Your task to perform on an android device: Go to calendar. Show me events next week Image 0: 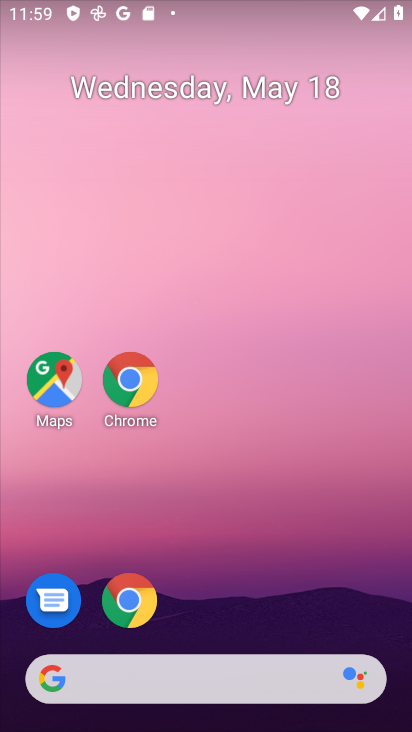
Step 0: drag from (331, 675) to (190, 31)
Your task to perform on an android device: Go to calendar. Show me events next week Image 1: 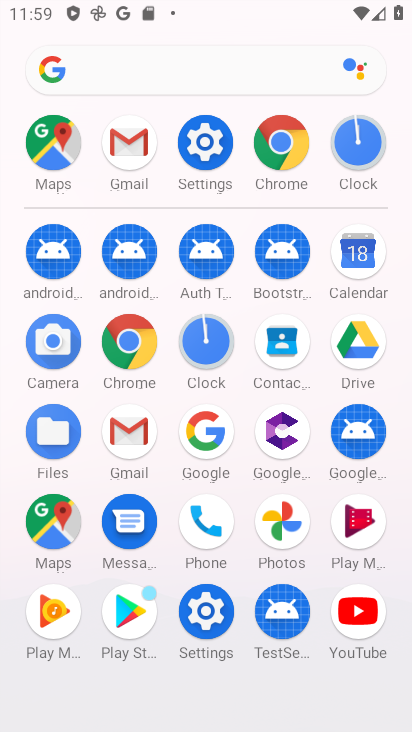
Step 1: click (363, 253)
Your task to perform on an android device: Go to calendar. Show me events next week Image 2: 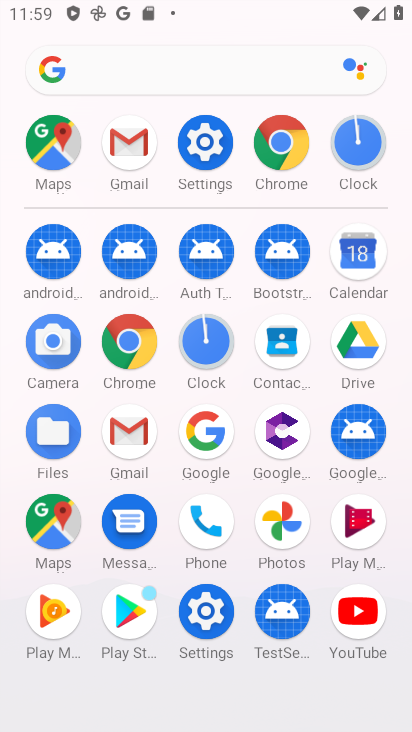
Step 2: click (363, 257)
Your task to perform on an android device: Go to calendar. Show me events next week Image 3: 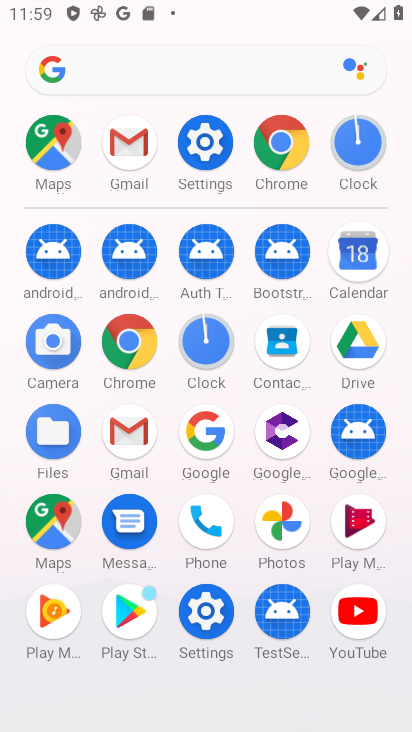
Step 3: click (372, 271)
Your task to perform on an android device: Go to calendar. Show me events next week Image 4: 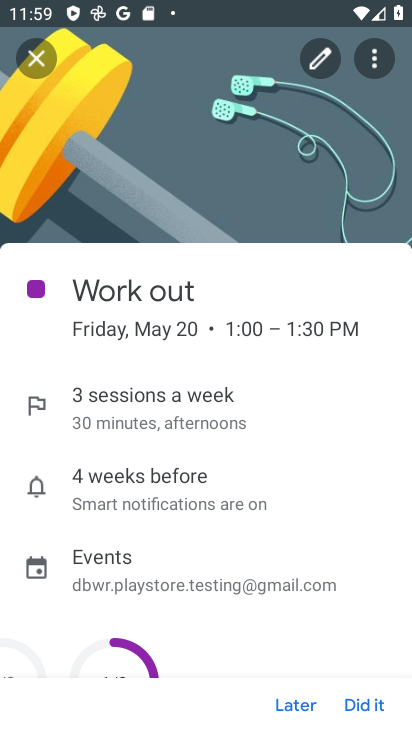
Step 4: click (345, 255)
Your task to perform on an android device: Go to calendar. Show me events next week Image 5: 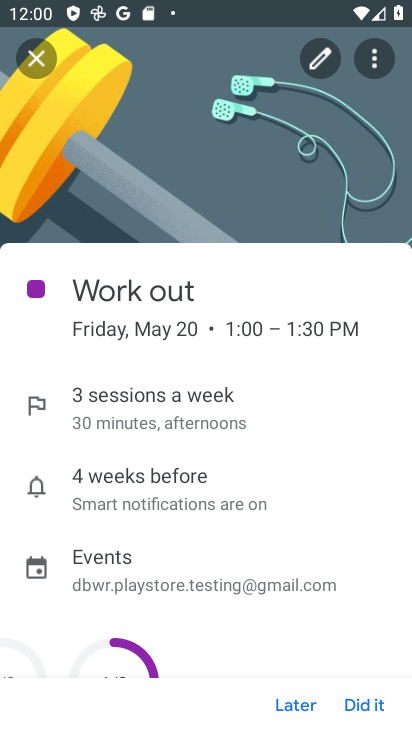
Step 5: drag from (195, 556) to (144, 274)
Your task to perform on an android device: Go to calendar. Show me events next week Image 6: 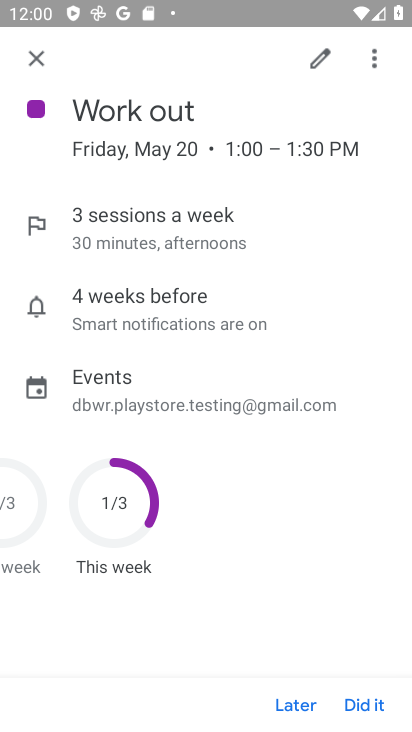
Step 6: drag from (221, 446) to (141, 142)
Your task to perform on an android device: Go to calendar. Show me events next week Image 7: 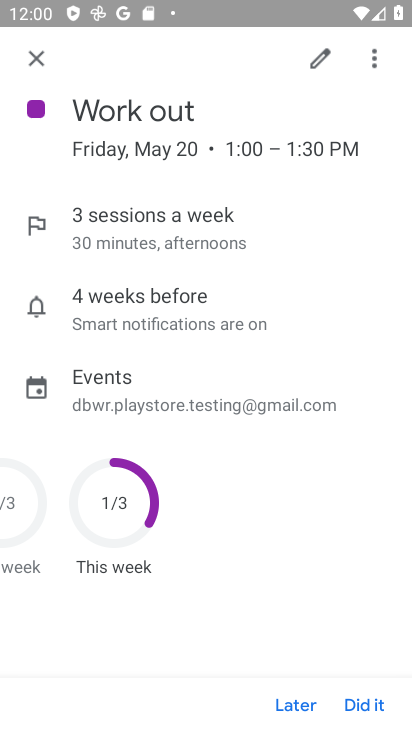
Step 7: drag from (329, 525) to (257, 44)
Your task to perform on an android device: Go to calendar. Show me events next week Image 8: 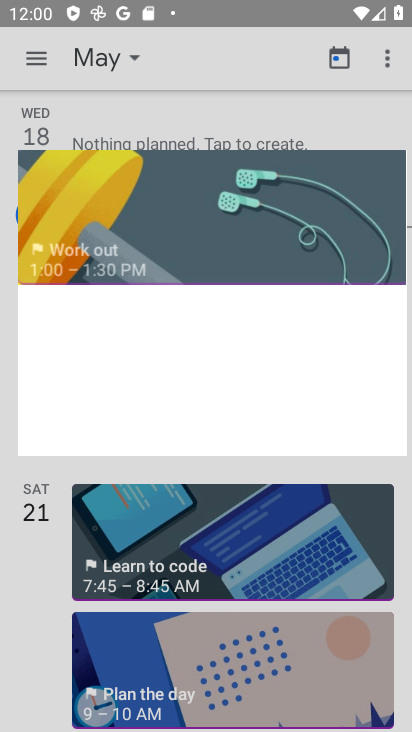
Step 8: drag from (282, 493) to (202, 76)
Your task to perform on an android device: Go to calendar. Show me events next week Image 9: 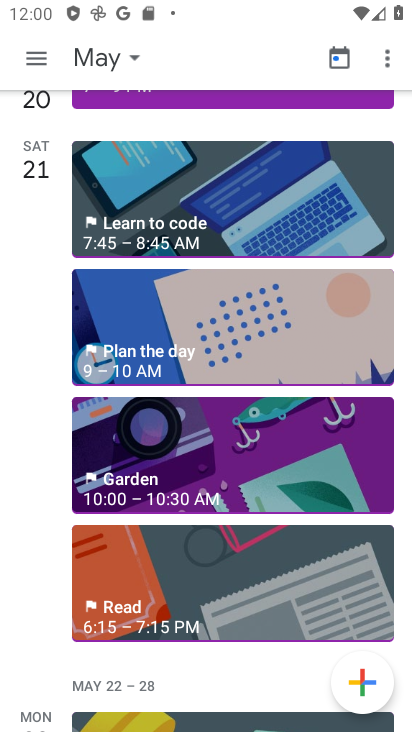
Step 9: drag from (240, 431) to (143, 28)
Your task to perform on an android device: Go to calendar. Show me events next week Image 10: 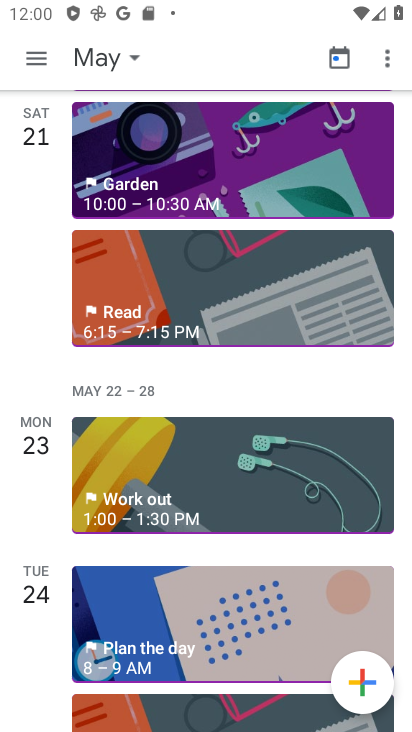
Step 10: drag from (213, 474) to (193, 49)
Your task to perform on an android device: Go to calendar. Show me events next week Image 11: 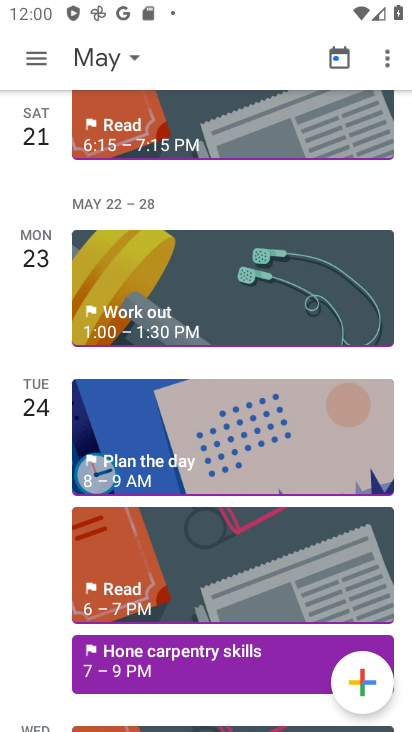
Step 11: drag from (272, 494) to (222, 64)
Your task to perform on an android device: Go to calendar. Show me events next week Image 12: 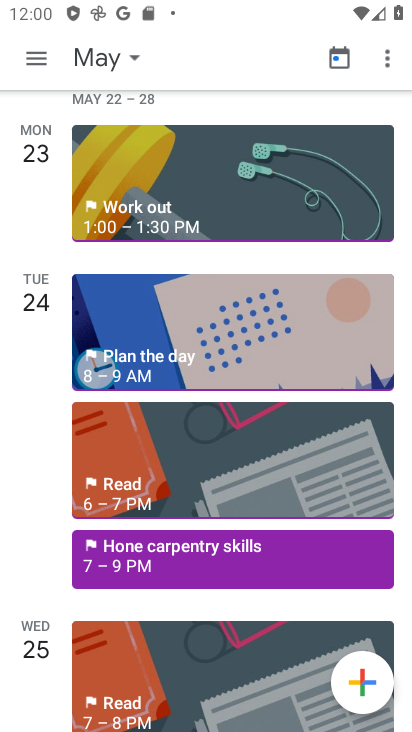
Step 12: drag from (262, 497) to (178, 108)
Your task to perform on an android device: Go to calendar. Show me events next week Image 13: 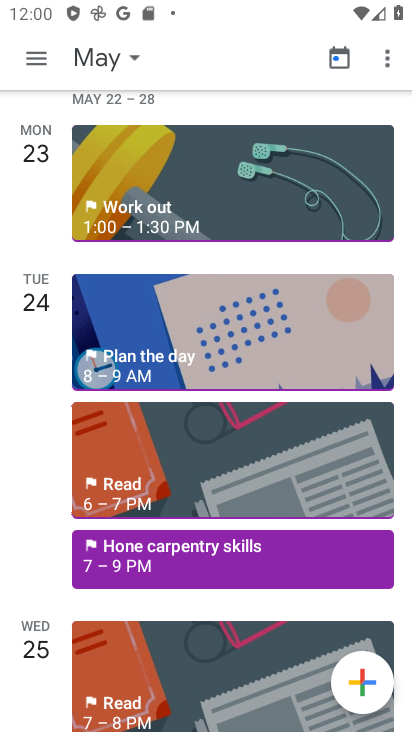
Step 13: drag from (237, 415) to (174, 79)
Your task to perform on an android device: Go to calendar. Show me events next week Image 14: 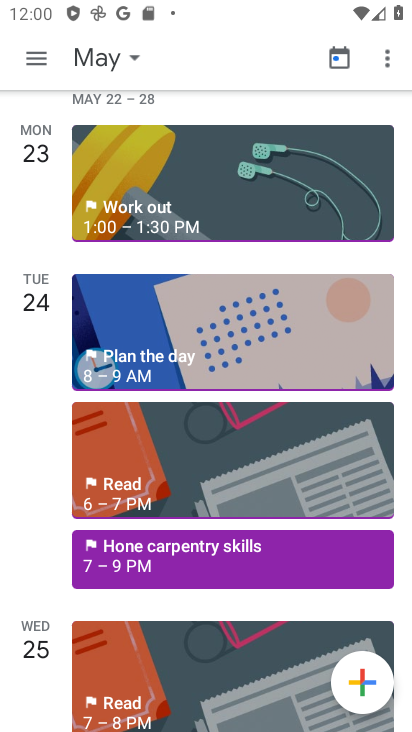
Step 14: drag from (204, 441) to (138, 117)
Your task to perform on an android device: Go to calendar. Show me events next week Image 15: 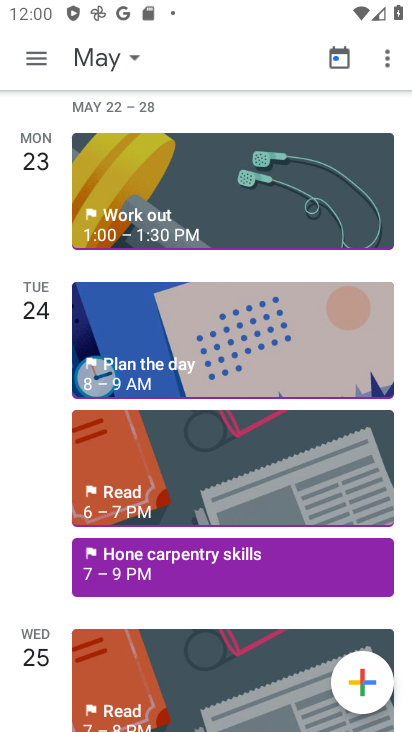
Step 15: drag from (229, 508) to (156, 106)
Your task to perform on an android device: Go to calendar. Show me events next week Image 16: 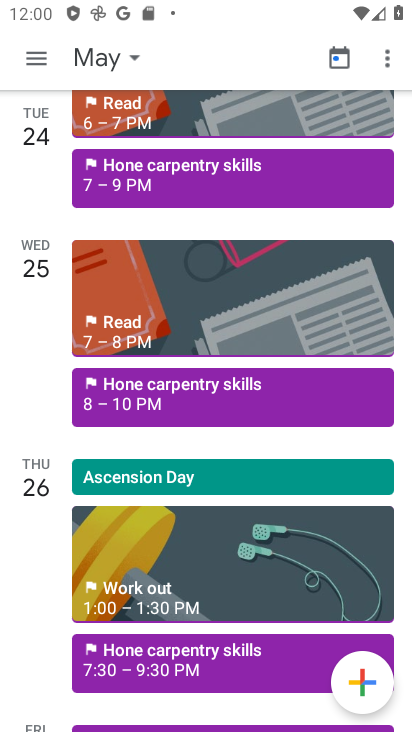
Step 16: drag from (203, 468) to (156, 110)
Your task to perform on an android device: Go to calendar. Show me events next week Image 17: 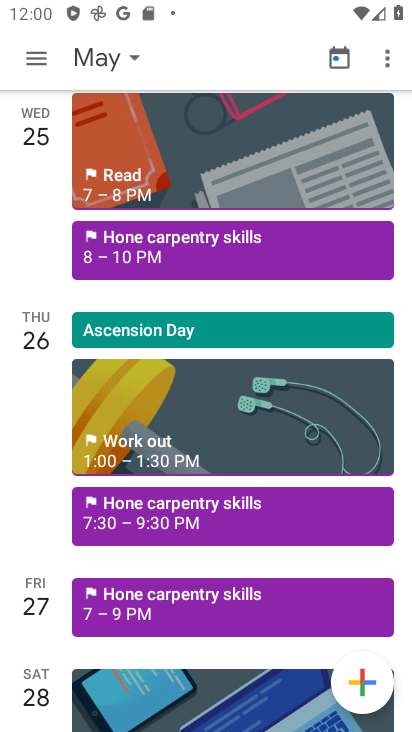
Step 17: drag from (199, 445) to (212, 76)
Your task to perform on an android device: Go to calendar. Show me events next week Image 18: 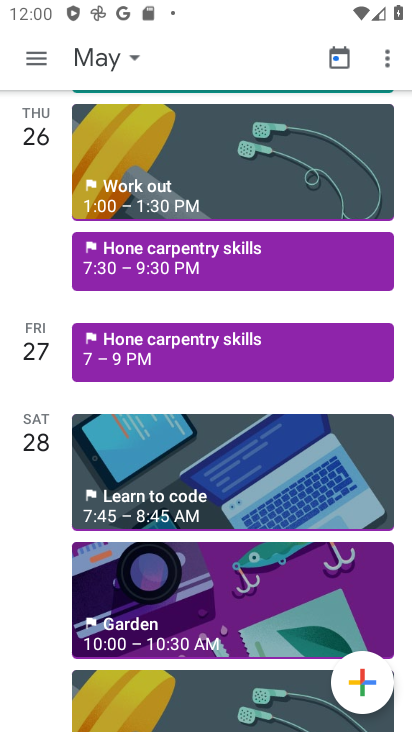
Step 18: drag from (231, 410) to (190, 79)
Your task to perform on an android device: Go to calendar. Show me events next week Image 19: 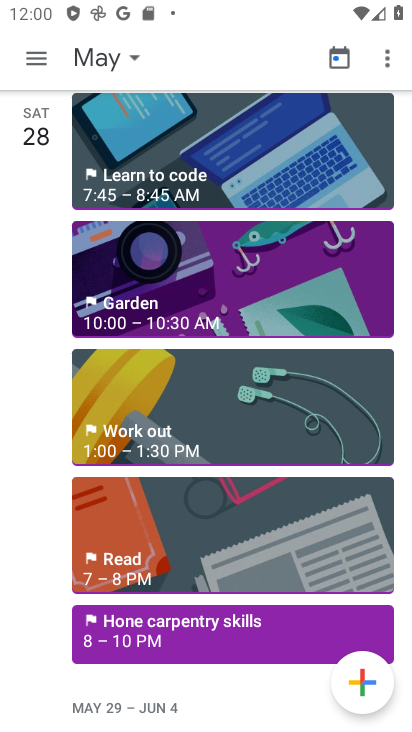
Step 19: drag from (205, 458) to (188, 82)
Your task to perform on an android device: Go to calendar. Show me events next week Image 20: 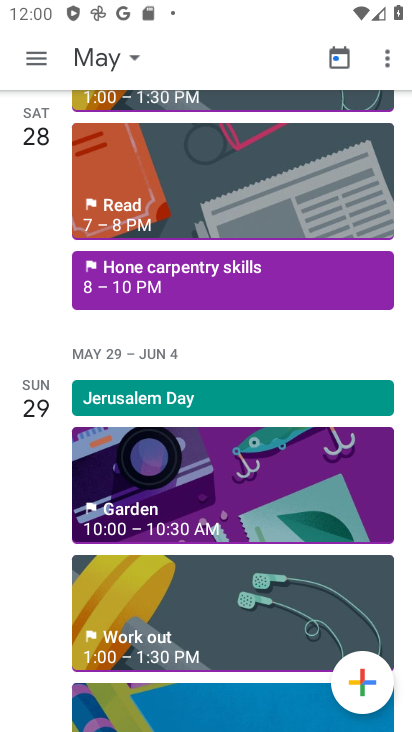
Step 20: drag from (204, 390) to (168, 83)
Your task to perform on an android device: Go to calendar. Show me events next week Image 21: 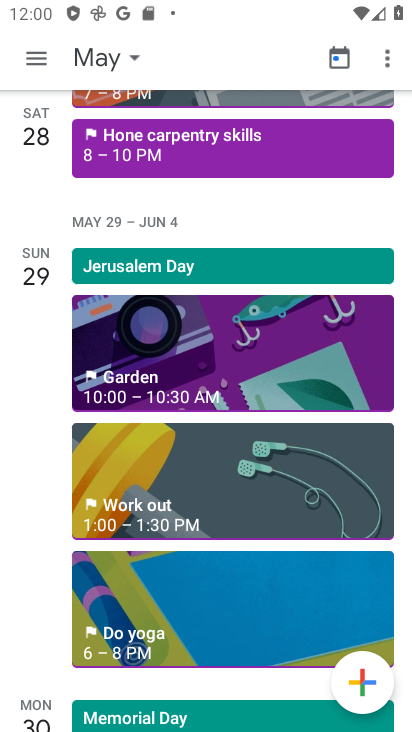
Step 21: drag from (195, 454) to (196, 58)
Your task to perform on an android device: Go to calendar. Show me events next week Image 22: 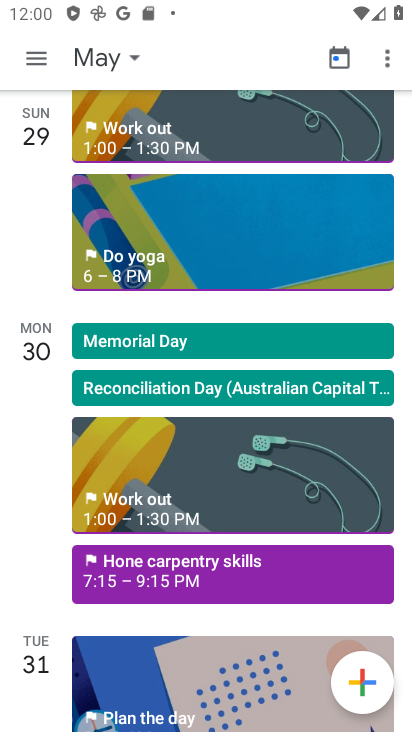
Step 22: drag from (197, 418) to (141, 123)
Your task to perform on an android device: Go to calendar. Show me events next week Image 23: 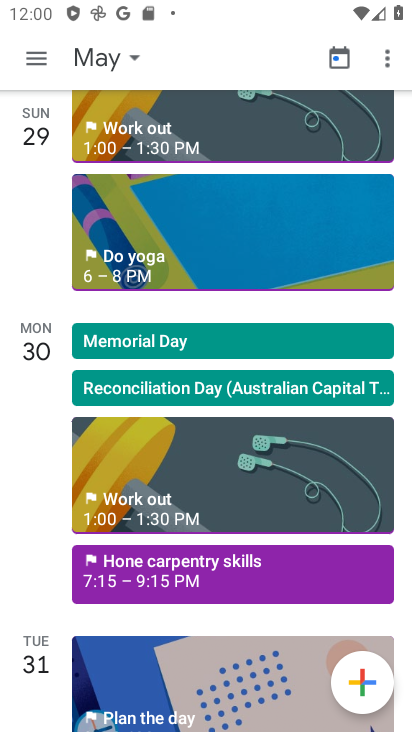
Step 23: drag from (209, 453) to (177, 254)
Your task to perform on an android device: Go to calendar. Show me events next week Image 24: 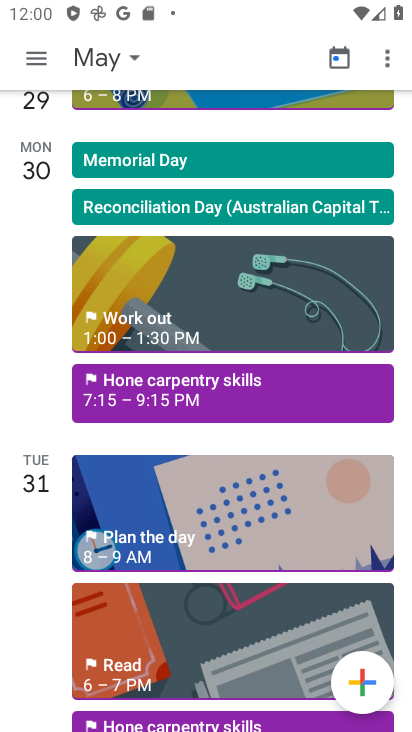
Step 24: drag from (208, 489) to (218, 78)
Your task to perform on an android device: Go to calendar. Show me events next week Image 25: 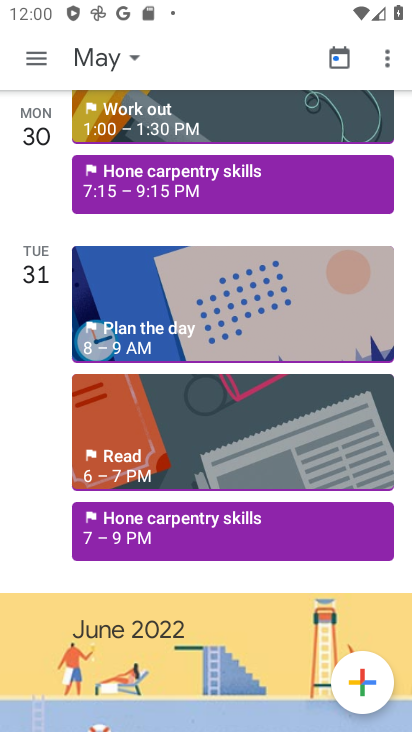
Step 25: drag from (224, 472) to (182, 192)
Your task to perform on an android device: Go to calendar. Show me events next week Image 26: 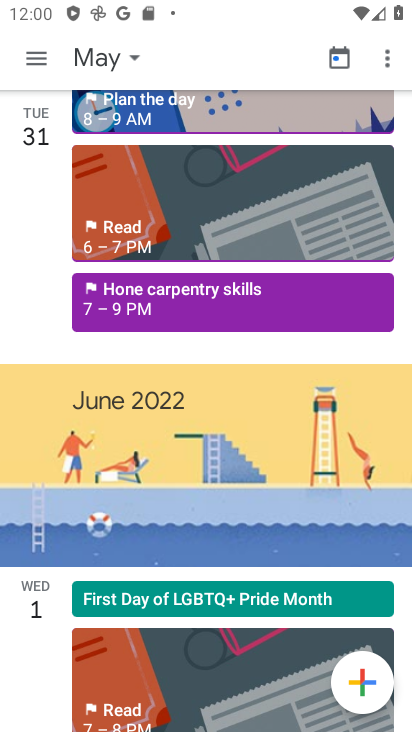
Step 26: drag from (251, 489) to (192, 21)
Your task to perform on an android device: Go to calendar. Show me events next week Image 27: 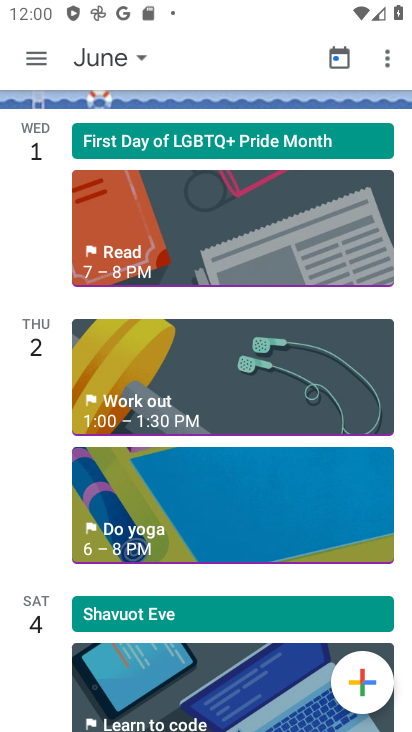
Step 27: drag from (161, 506) to (128, 8)
Your task to perform on an android device: Go to calendar. Show me events next week Image 28: 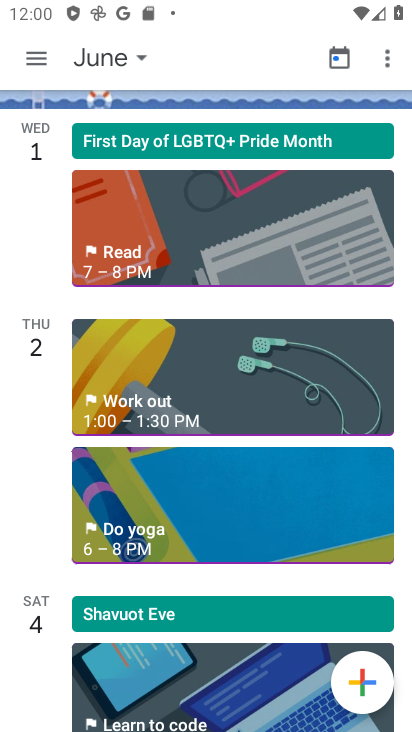
Step 28: drag from (218, 471) to (192, 145)
Your task to perform on an android device: Go to calendar. Show me events next week Image 29: 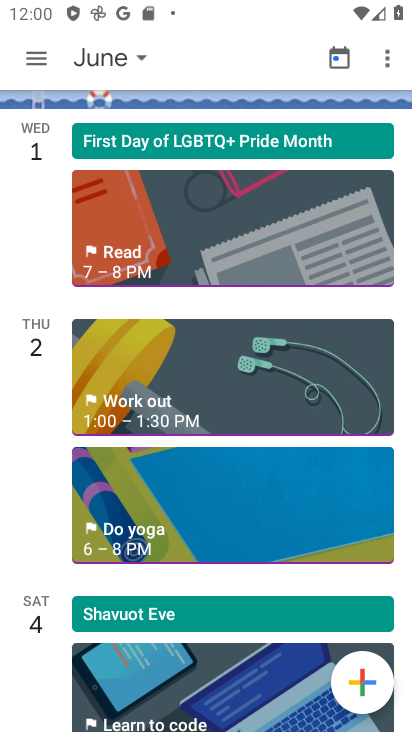
Step 29: drag from (255, 481) to (202, 283)
Your task to perform on an android device: Go to calendar. Show me events next week Image 30: 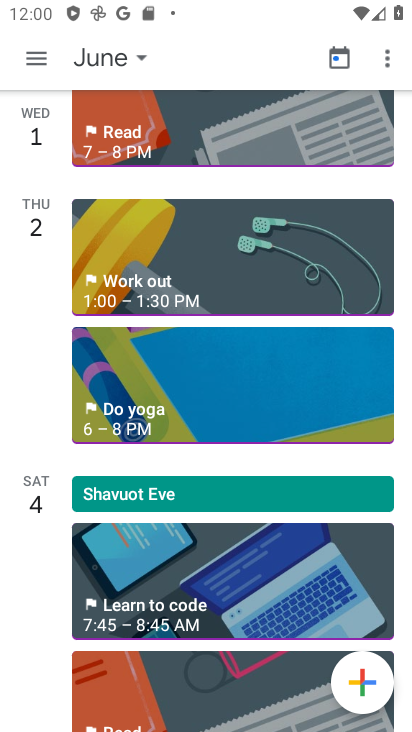
Step 30: drag from (200, 561) to (168, 181)
Your task to perform on an android device: Go to calendar. Show me events next week Image 31: 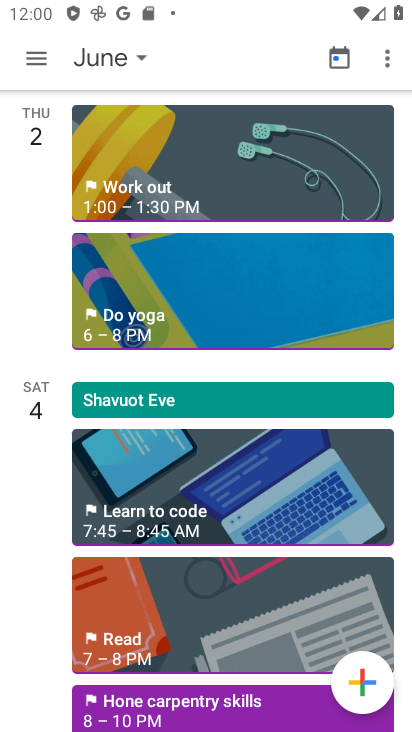
Step 31: drag from (223, 421) to (201, 272)
Your task to perform on an android device: Go to calendar. Show me events next week Image 32: 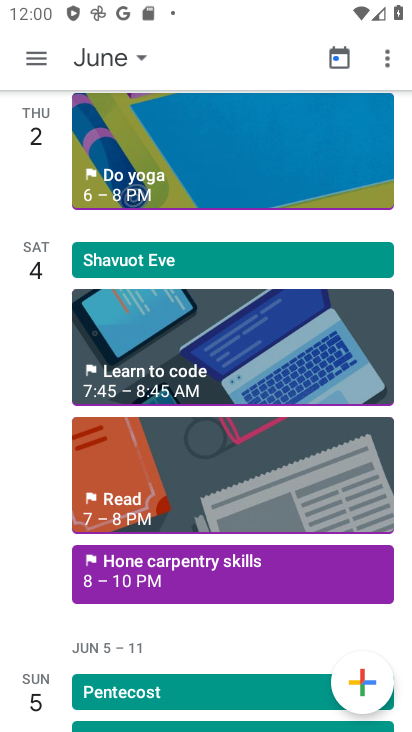
Step 32: drag from (237, 483) to (153, 176)
Your task to perform on an android device: Go to calendar. Show me events next week Image 33: 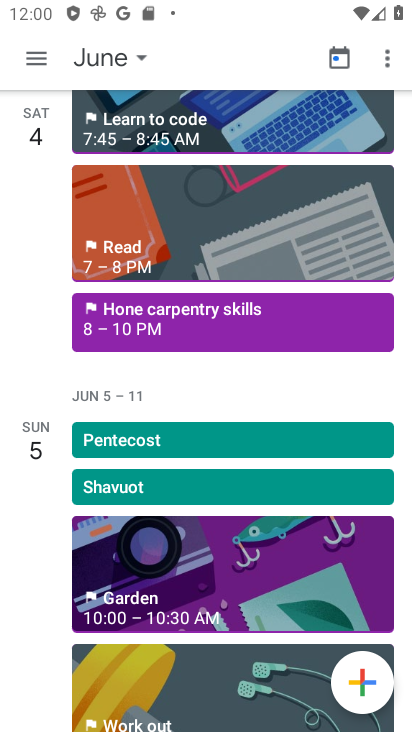
Step 33: drag from (271, 527) to (221, 78)
Your task to perform on an android device: Go to calendar. Show me events next week Image 34: 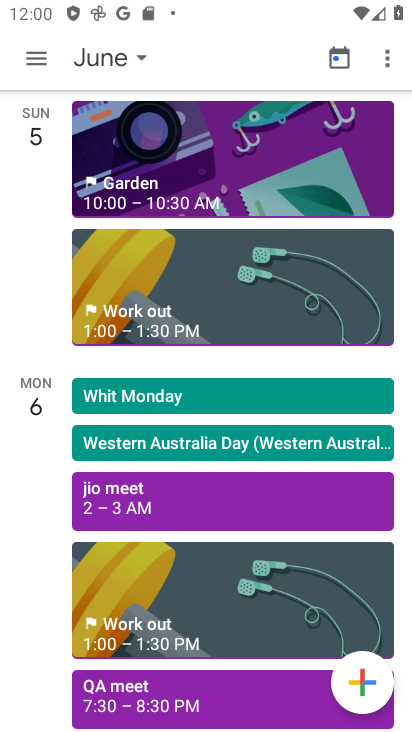
Step 34: drag from (216, 531) to (169, 72)
Your task to perform on an android device: Go to calendar. Show me events next week Image 35: 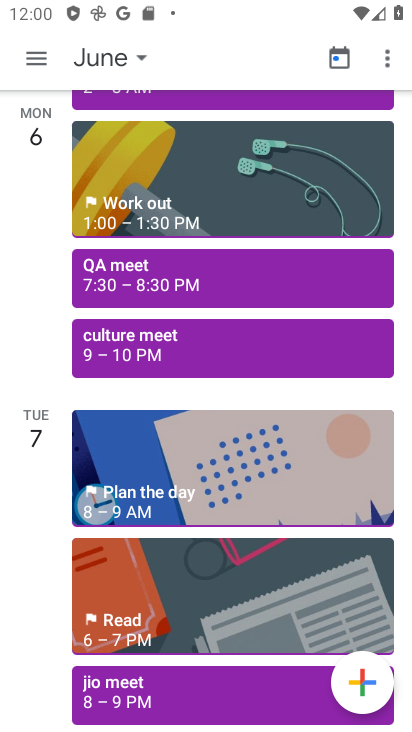
Step 35: drag from (133, 501) to (119, 54)
Your task to perform on an android device: Go to calendar. Show me events next week Image 36: 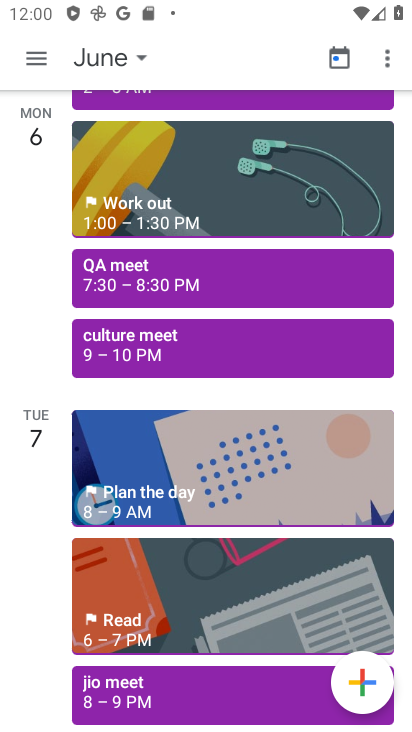
Step 36: drag from (219, 567) to (215, 133)
Your task to perform on an android device: Go to calendar. Show me events next week Image 37: 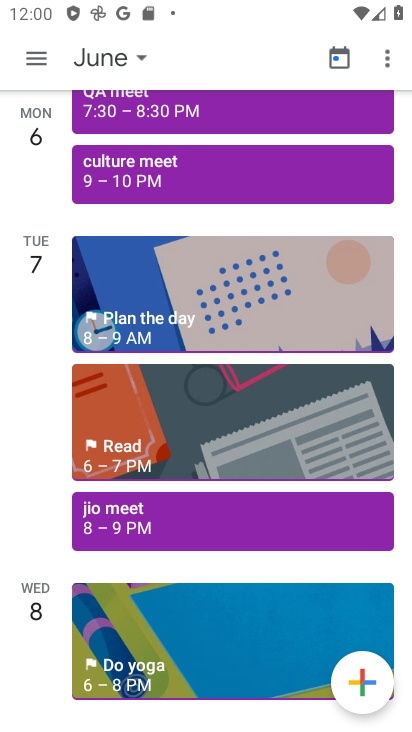
Step 37: drag from (181, 208) to (291, 719)
Your task to perform on an android device: Go to calendar. Show me events next week Image 38: 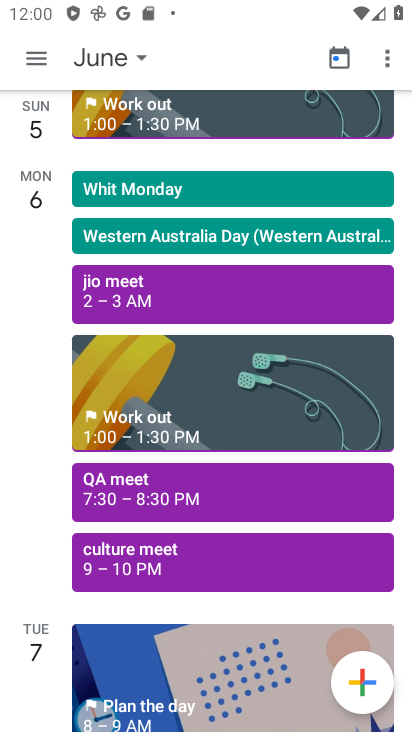
Step 38: drag from (180, 334) to (230, 674)
Your task to perform on an android device: Go to calendar. Show me events next week Image 39: 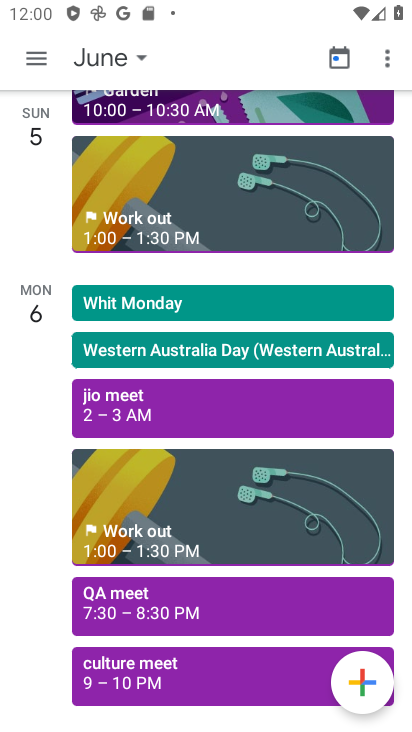
Step 39: drag from (160, 250) to (227, 615)
Your task to perform on an android device: Go to calendar. Show me events next week Image 40: 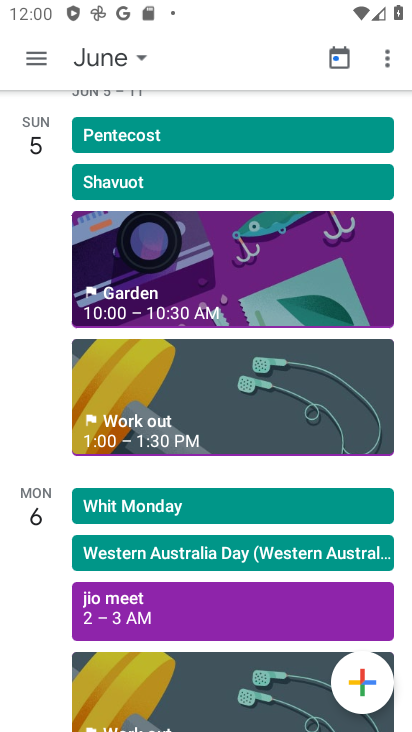
Step 40: drag from (171, 272) to (273, 682)
Your task to perform on an android device: Go to calendar. Show me events next week Image 41: 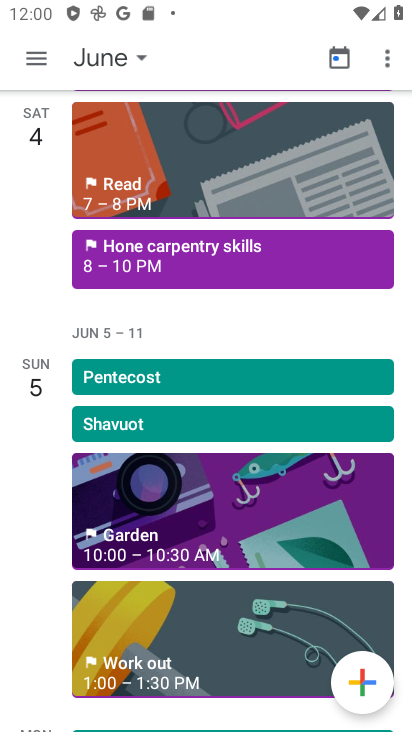
Step 41: drag from (114, 153) to (235, 562)
Your task to perform on an android device: Go to calendar. Show me events next week Image 42: 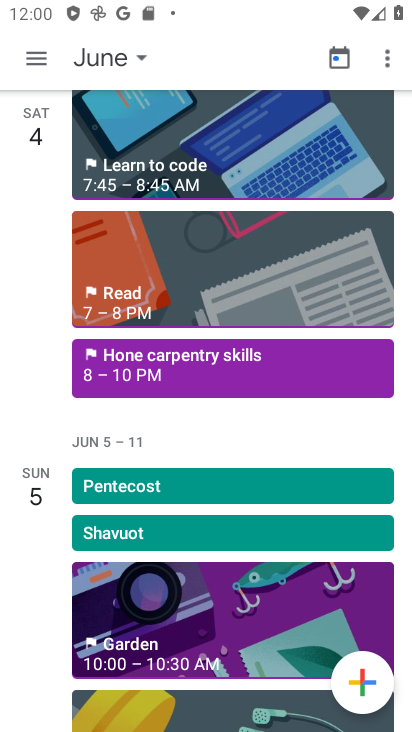
Step 42: drag from (180, 253) to (277, 553)
Your task to perform on an android device: Go to calendar. Show me events next week Image 43: 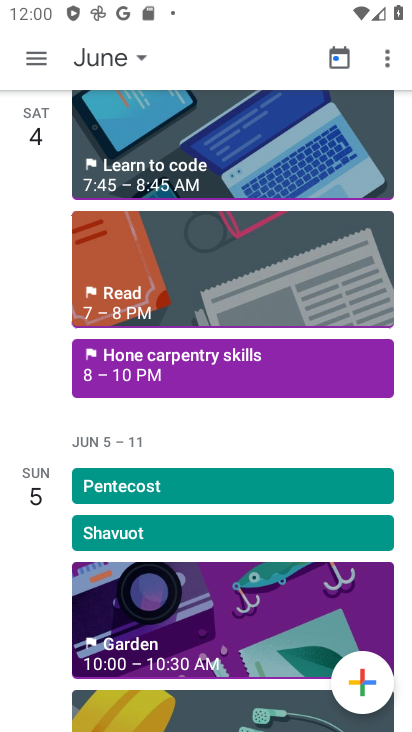
Step 43: drag from (189, 220) to (233, 603)
Your task to perform on an android device: Go to calendar. Show me events next week Image 44: 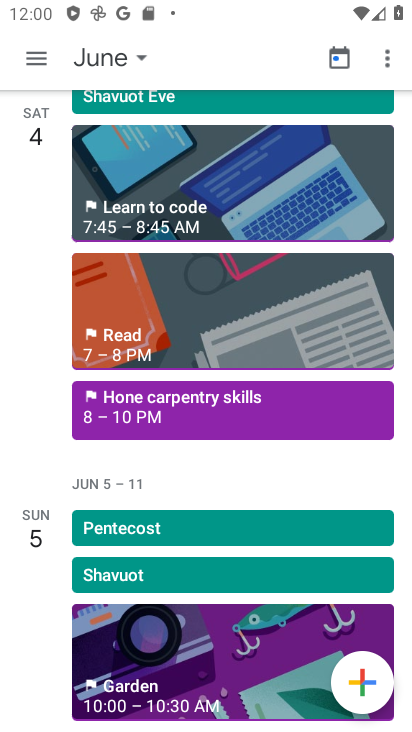
Step 44: drag from (156, 242) to (136, 554)
Your task to perform on an android device: Go to calendar. Show me events next week Image 45: 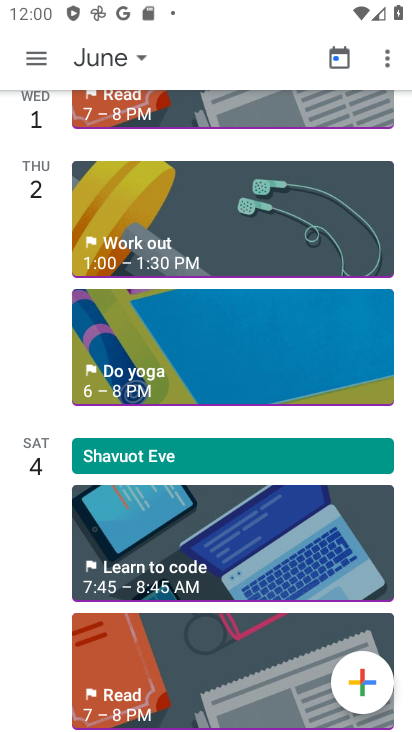
Step 45: click (217, 577)
Your task to perform on an android device: Go to calendar. Show me events next week Image 46: 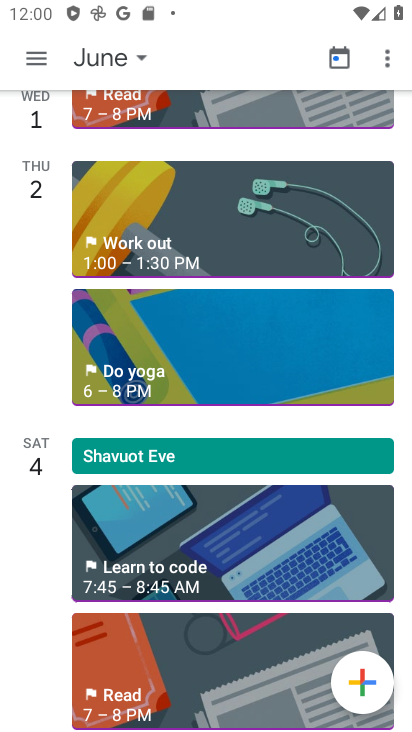
Step 46: click (245, 619)
Your task to perform on an android device: Go to calendar. Show me events next week Image 47: 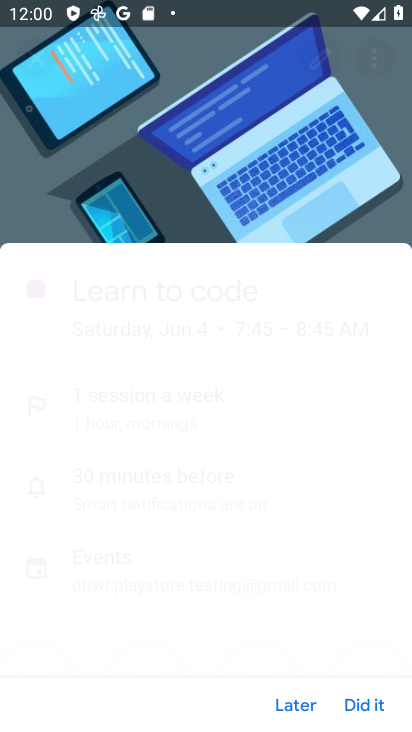
Step 47: drag from (226, 646) to (234, 696)
Your task to perform on an android device: Go to calendar. Show me events next week Image 48: 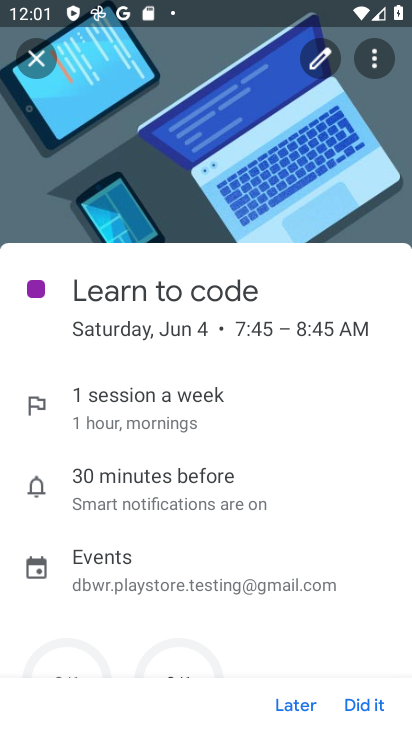
Step 48: click (33, 53)
Your task to perform on an android device: Go to calendar. Show me events next week Image 49: 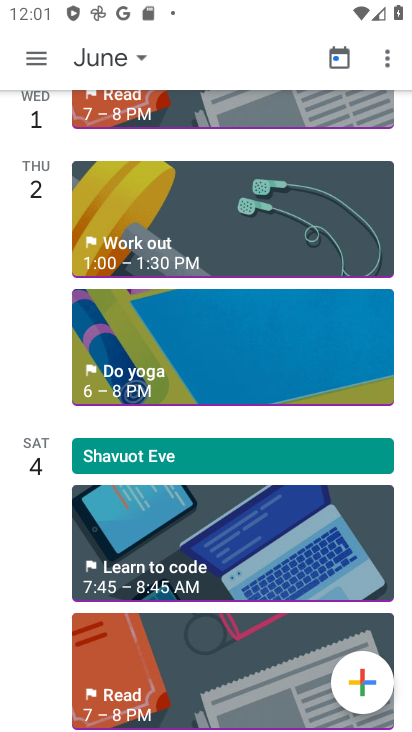
Step 49: task complete